Your task to perform on an android device: check the backup settings in the google photos Image 0: 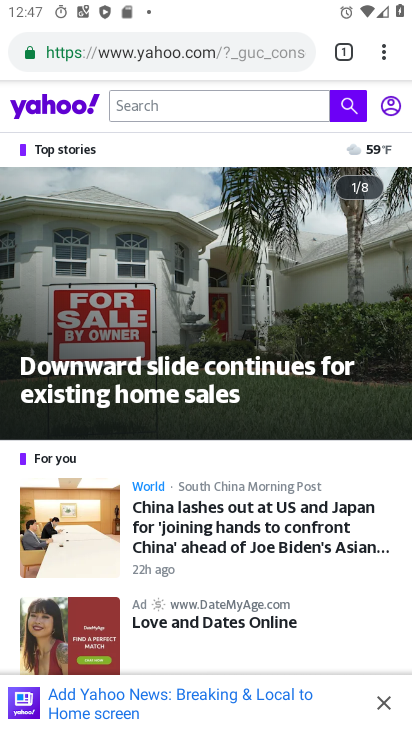
Step 0: press home button
Your task to perform on an android device: check the backup settings in the google photos Image 1: 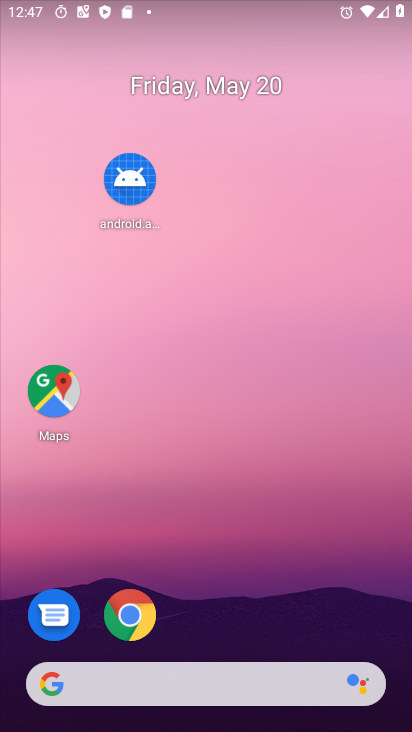
Step 1: drag from (272, 568) to (261, 15)
Your task to perform on an android device: check the backup settings in the google photos Image 2: 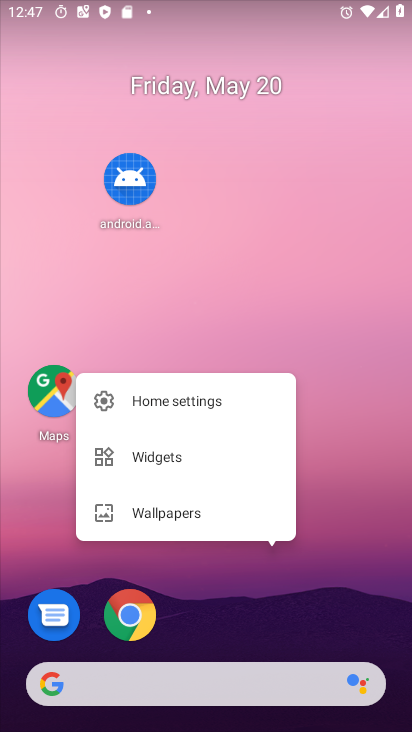
Step 2: drag from (386, 594) to (350, 97)
Your task to perform on an android device: check the backup settings in the google photos Image 3: 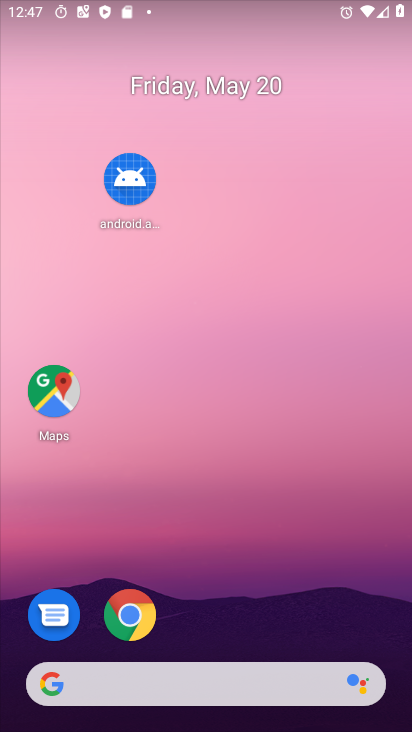
Step 3: drag from (345, 609) to (310, 178)
Your task to perform on an android device: check the backup settings in the google photos Image 4: 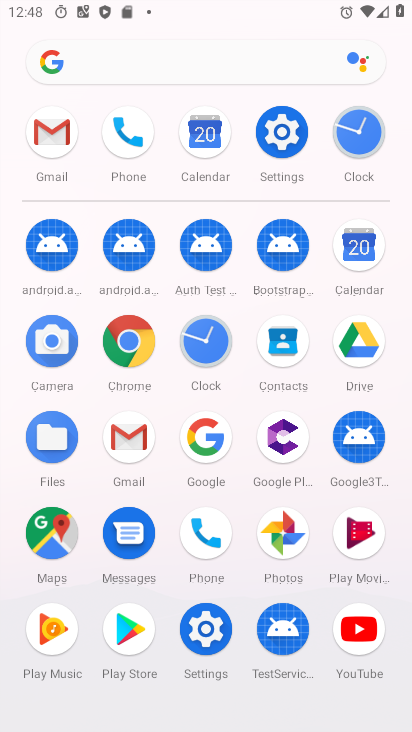
Step 4: click (280, 529)
Your task to perform on an android device: check the backup settings in the google photos Image 5: 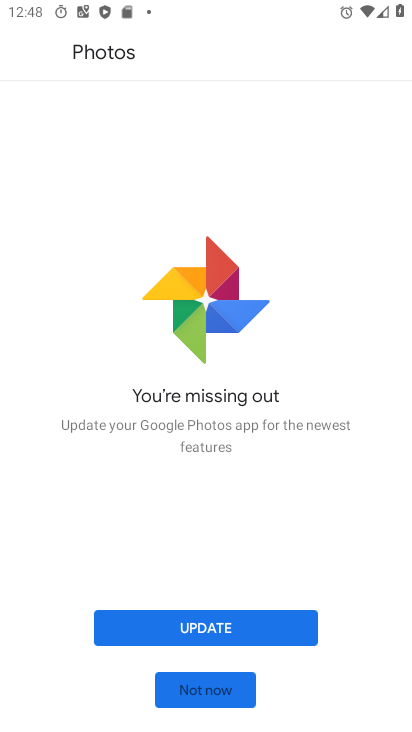
Step 5: click (211, 690)
Your task to perform on an android device: check the backup settings in the google photos Image 6: 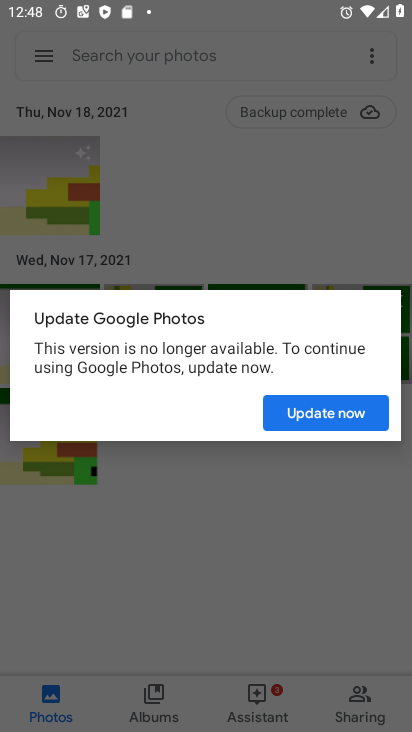
Step 6: click (319, 414)
Your task to perform on an android device: check the backup settings in the google photos Image 7: 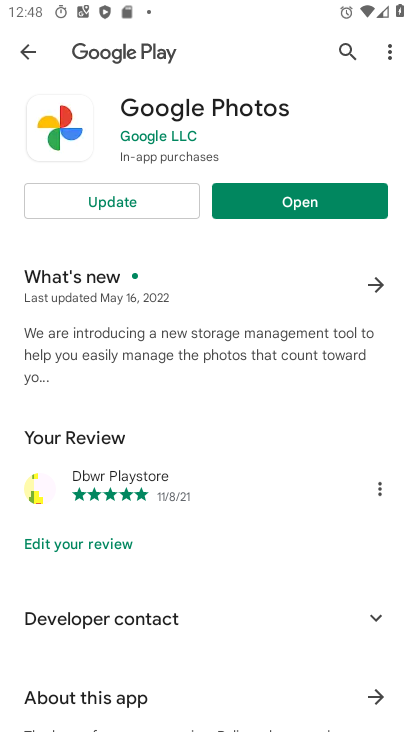
Step 7: click (241, 197)
Your task to perform on an android device: check the backup settings in the google photos Image 8: 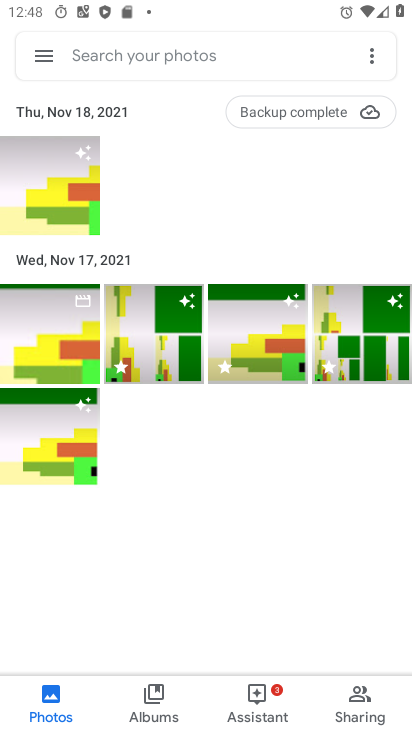
Step 8: click (40, 61)
Your task to perform on an android device: check the backup settings in the google photos Image 9: 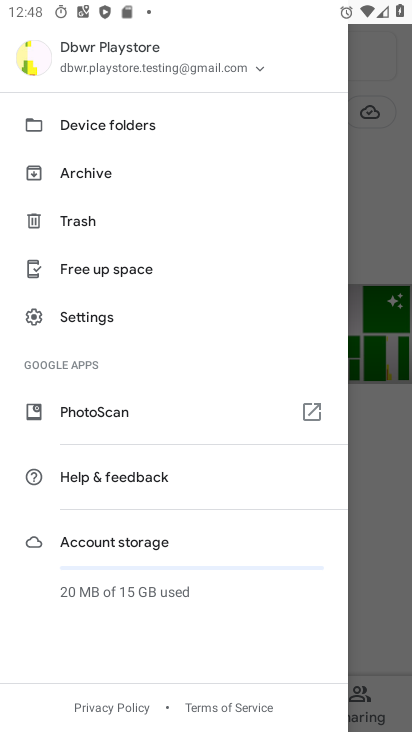
Step 9: click (100, 318)
Your task to perform on an android device: check the backup settings in the google photos Image 10: 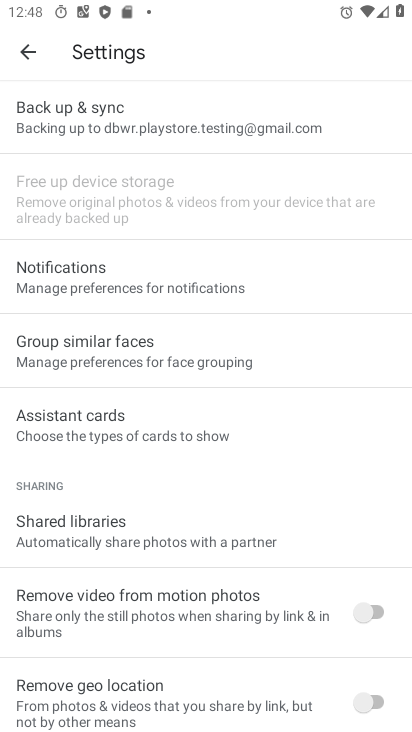
Step 10: click (68, 128)
Your task to perform on an android device: check the backup settings in the google photos Image 11: 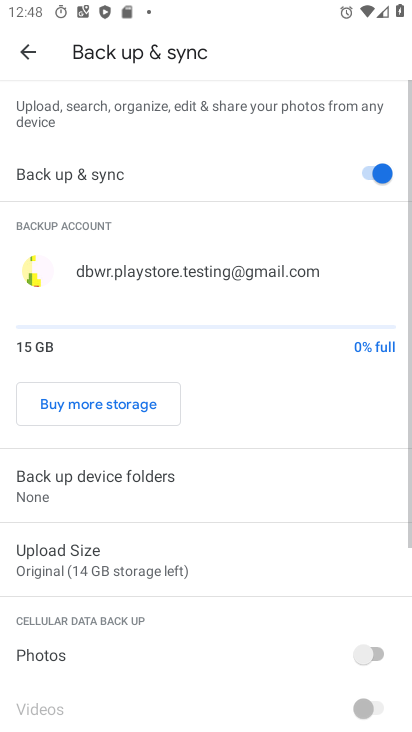
Step 11: task complete